Your task to perform on an android device: Show the shopping cart on costco. Add bose soundlink to the cart on costco Image 0: 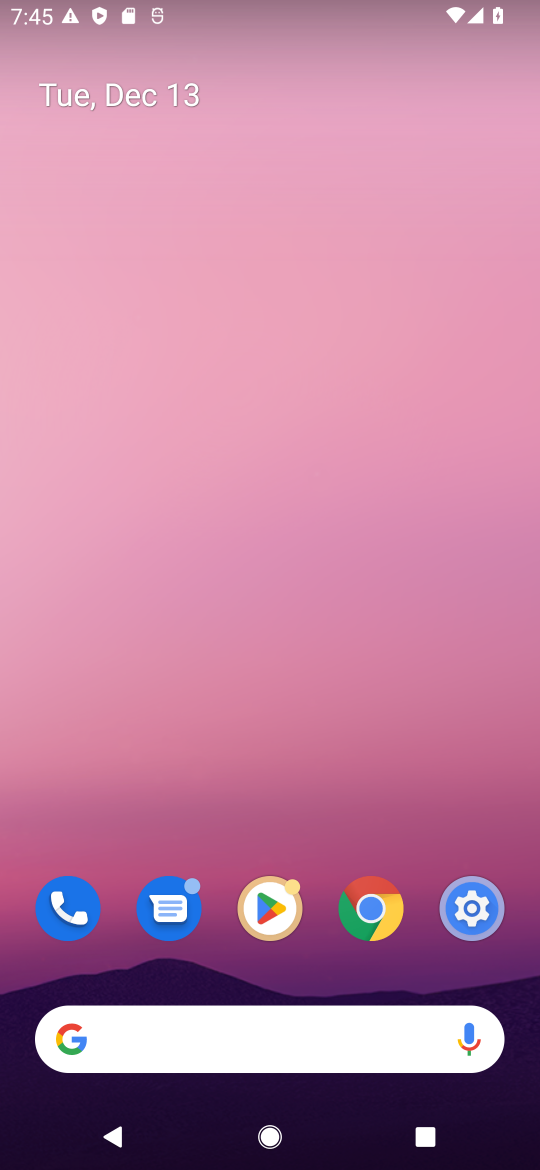
Step 0: press home button
Your task to perform on an android device: Show the shopping cart on costco. Add bose soundlink to the cart on costco Image 1: 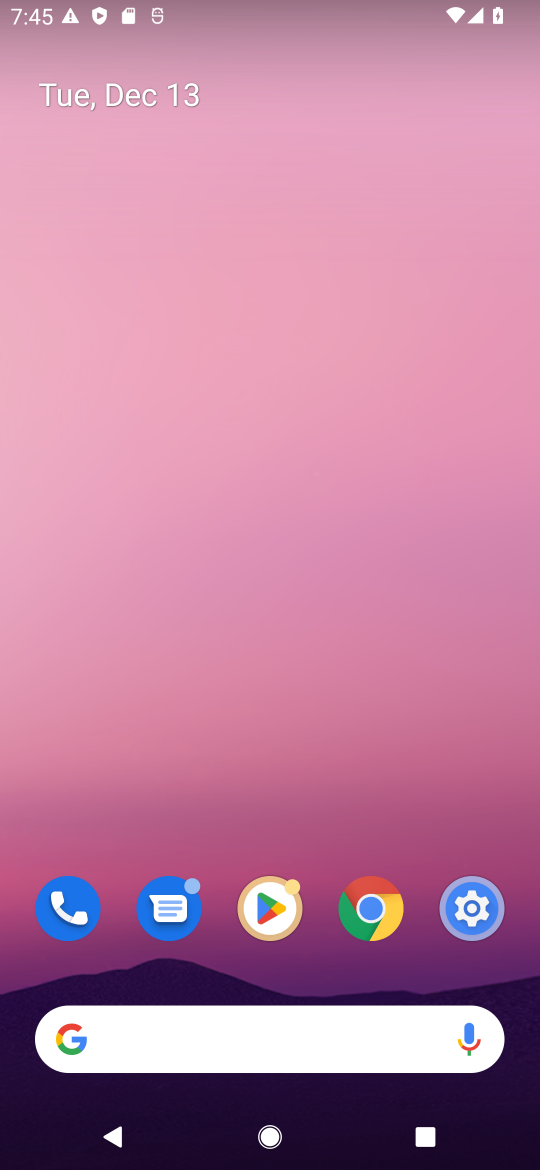
Step 1: click (108, 1032)
Your task to perform on an android device: Show the shopping cart on costco. Add bose soundlink to the cart on costco Image 2: 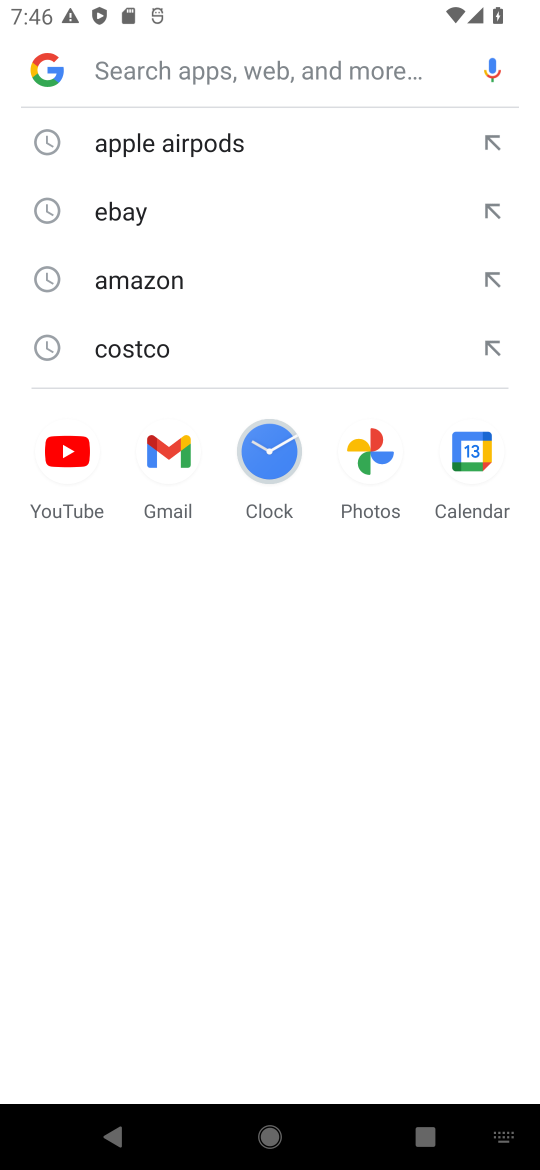
Step 2: type "costco"
Your task to perform on an android device: Show the shopping cart on costco. Add bose soundlink to the cart on costco Image 3: 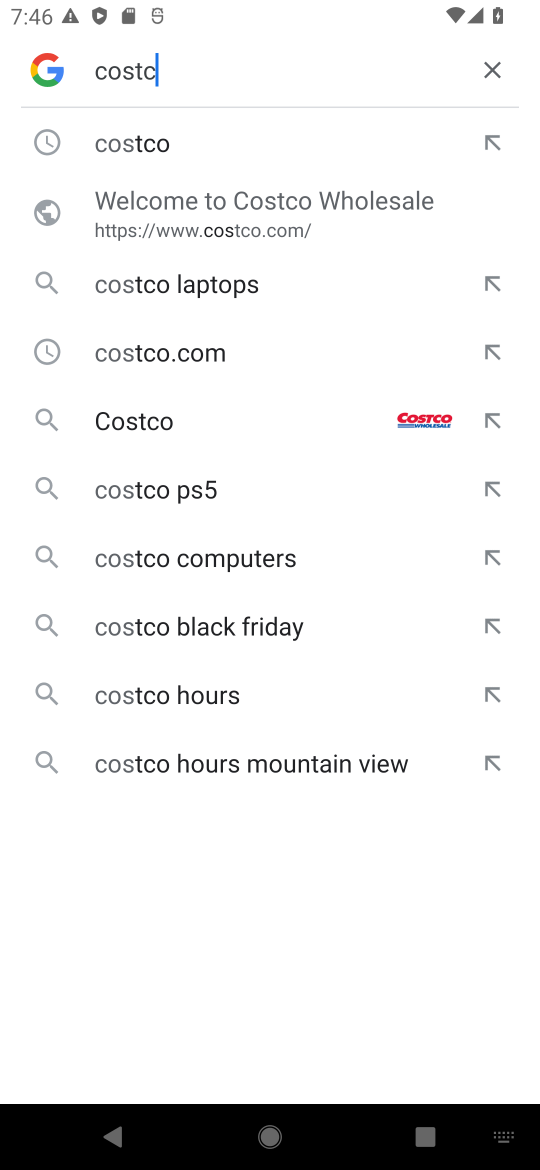
Step 3: press enter
Your task to perform on an android device: Show the shopping cart on costco. Add bose soundlink to the cart on costco Image 4: 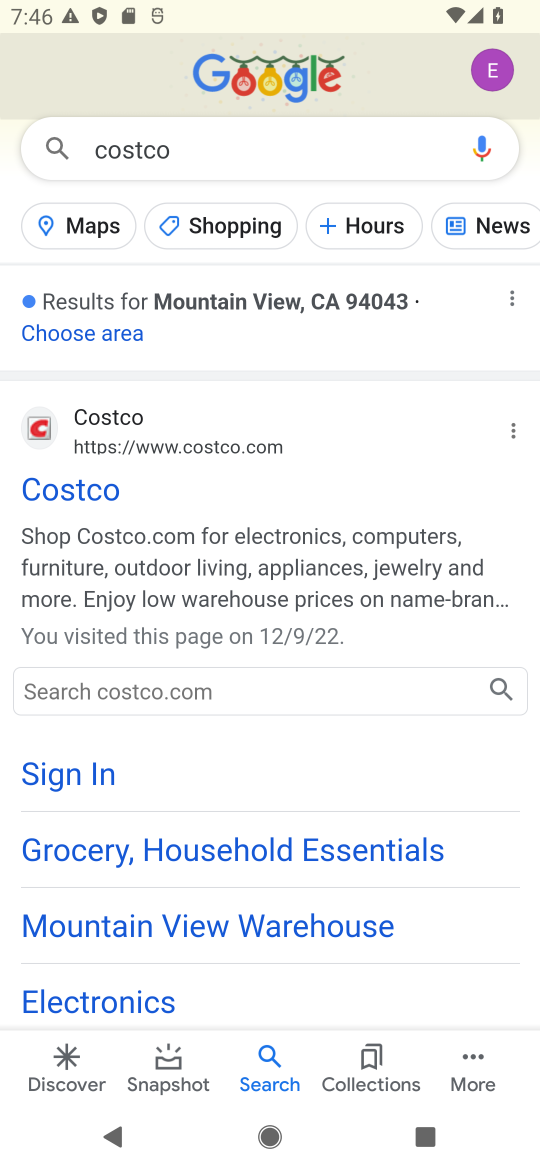
Step 4: click (81, 485)
Your task to perform on an android device: Show the shopping cart on costco. Add bose soundlink to the cart on costco Image 5: 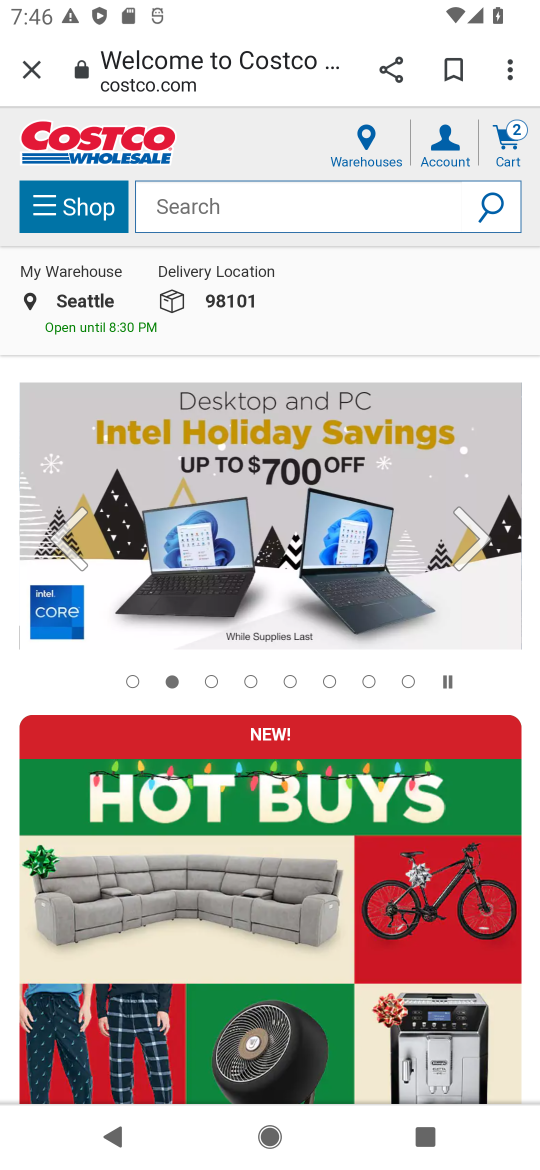
Step 5: click (509, 136)
Your task to perform on an android device: Show the shopping cart on costco. Add bose soundlink to the cart on costco Image 6: 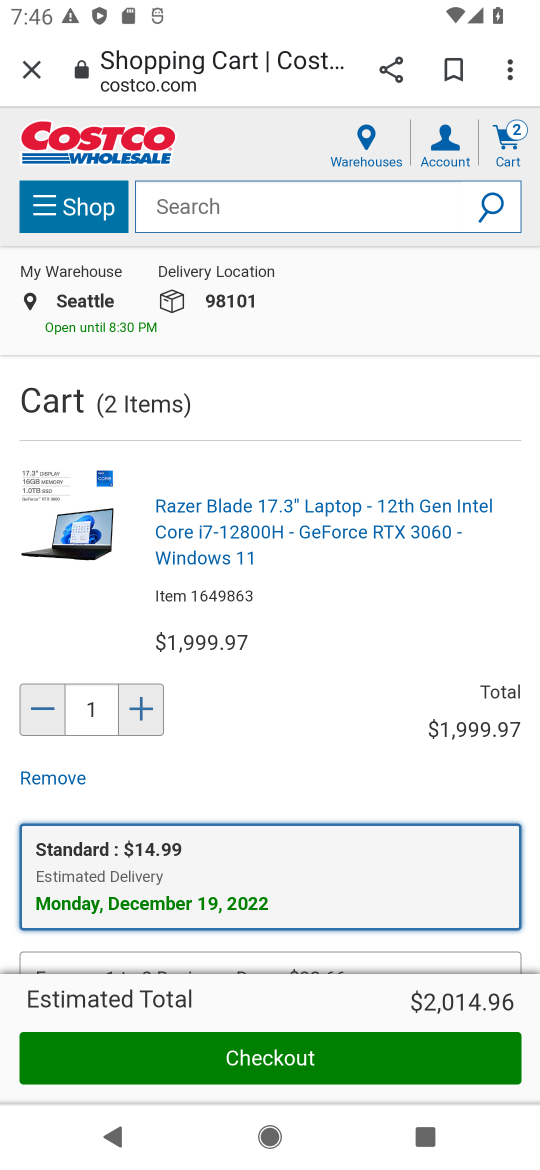
Step 6: click (193, 211)
Your task to perform on an android device: Show the shopping cart on costco. Add bose soundlink to the cart on costco Image 7: 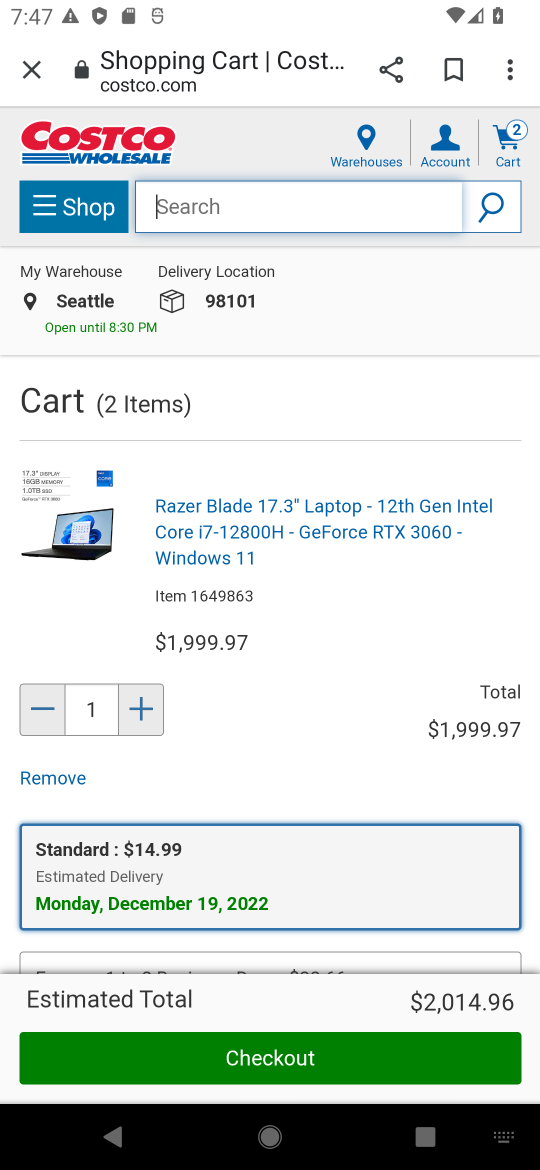
Step 7: type "bose soundlink"
Your task to perform on an android device: Show the shopping cart on costco. Add bose soundlink to the cart on costco Image 8: 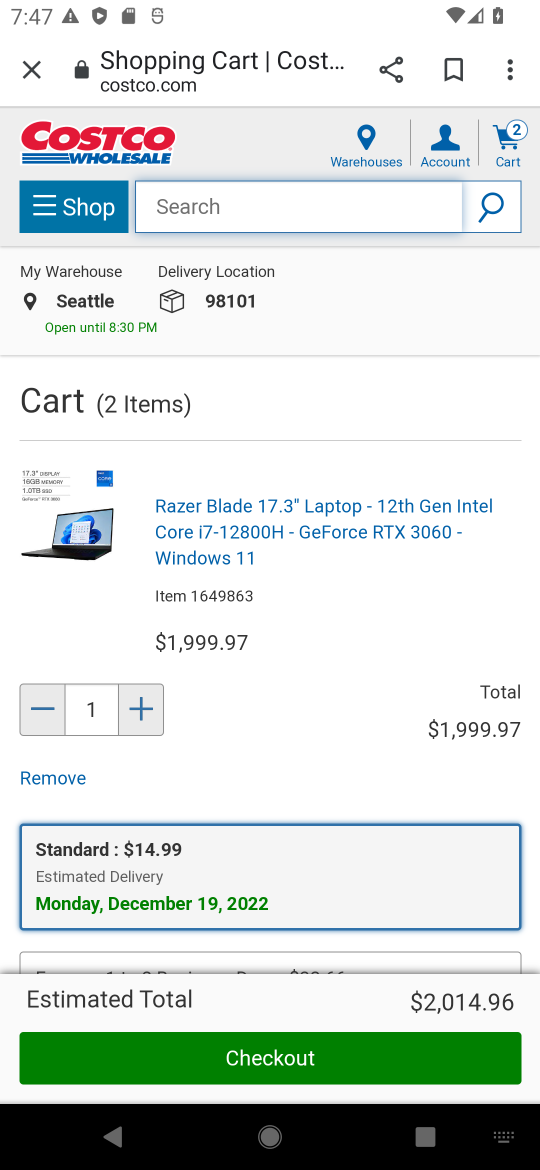
Step 8: press enter
Your task to perform on an android device: Show the shopping cart on costco. Add bose soundlink to the cart on costco Image 9: 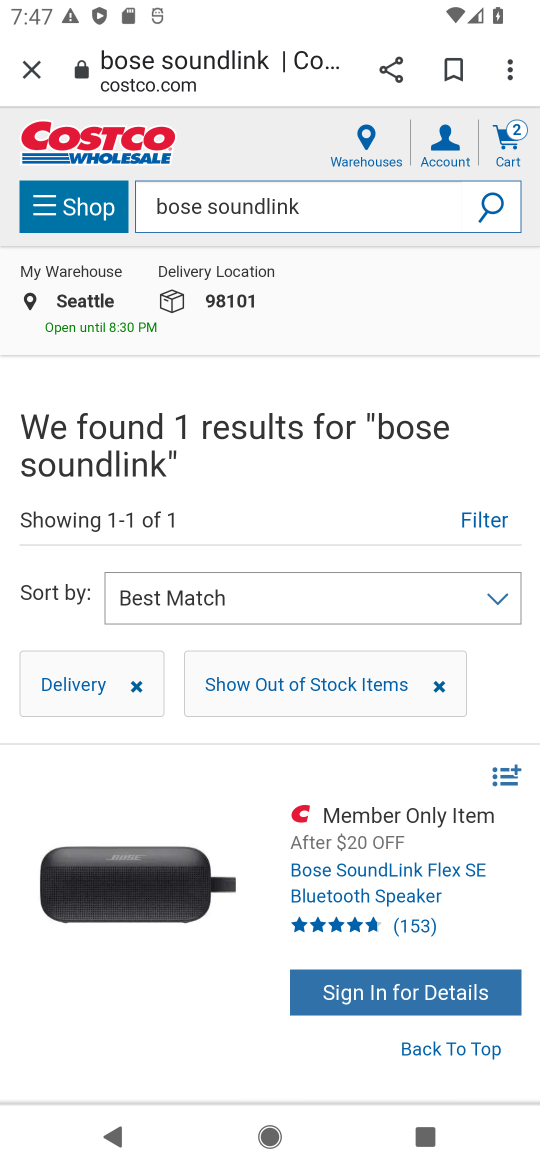
Step 9: drag from (246, 909) to (302, 584)
Your task to perform on an android device: Show the shopping cart on costco. Add bose soundlink to the cart on costco Image 10: 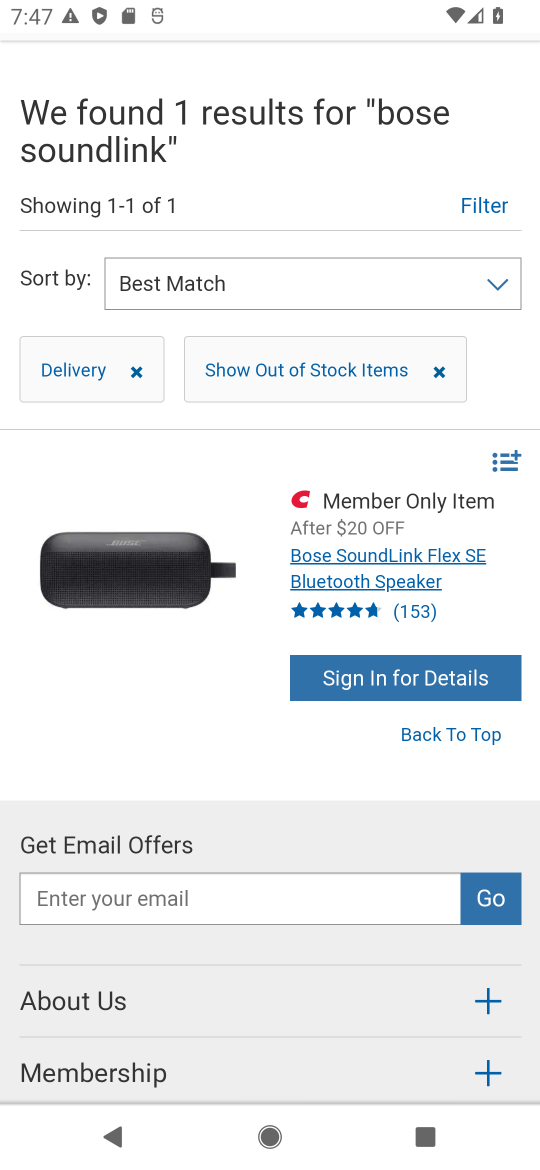
Step 10: click (337, 532)
Your task to perform on an android device: Show the shopping cart on costco. Add bose soundlink to the cart on costco Image 11: 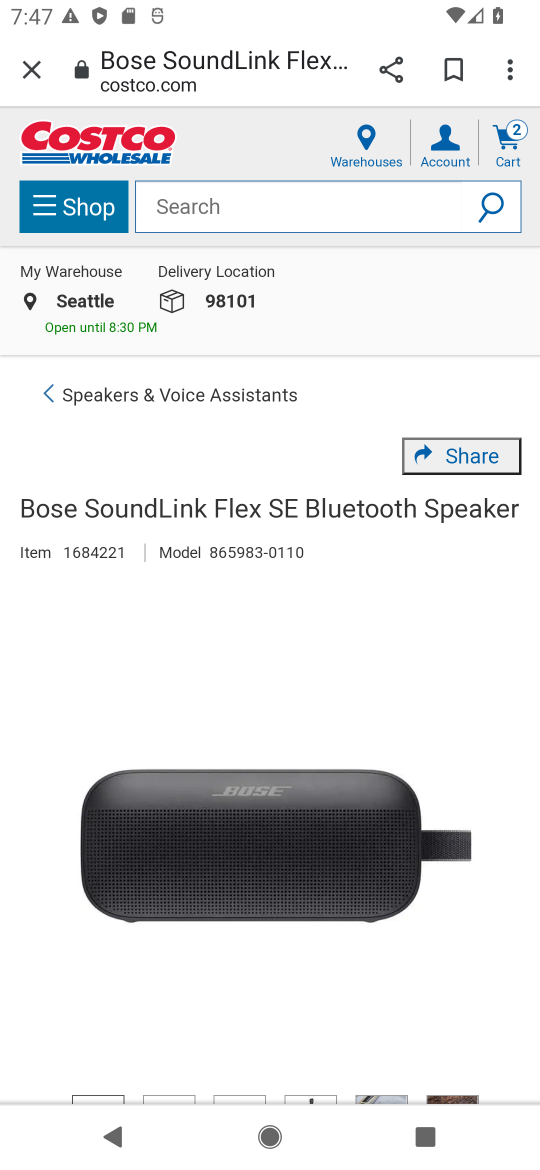
Step 11: drag from (277, 923) to (254, 392)
Your task to perform on an android device: Show the shopping cart on costco. Add bose soundlink to the cart on costco Image 12: 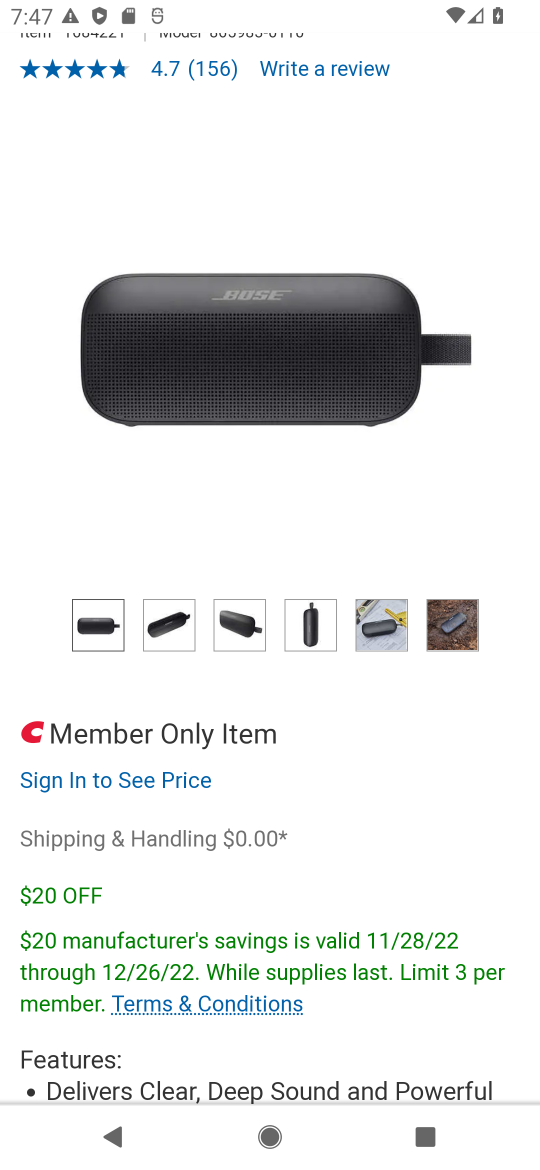
Step 12: drag from (247, 912) to (256, 372)
Your task to perform on an android device: Show the shopping cart on costco. Add bose soundlink to the cart on costco Image 13: 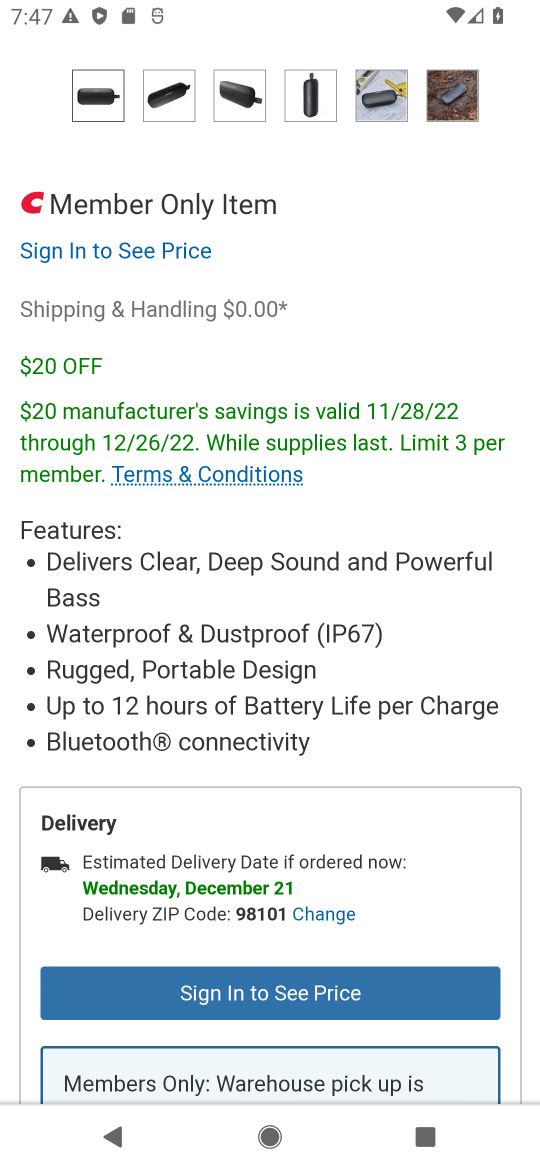
Step 13: drag from (253, 921) to (296, 396)
Your task to perform on an android device: Show the shopping cart on costco. Add bose soundlink to the cart on costco Image 14: 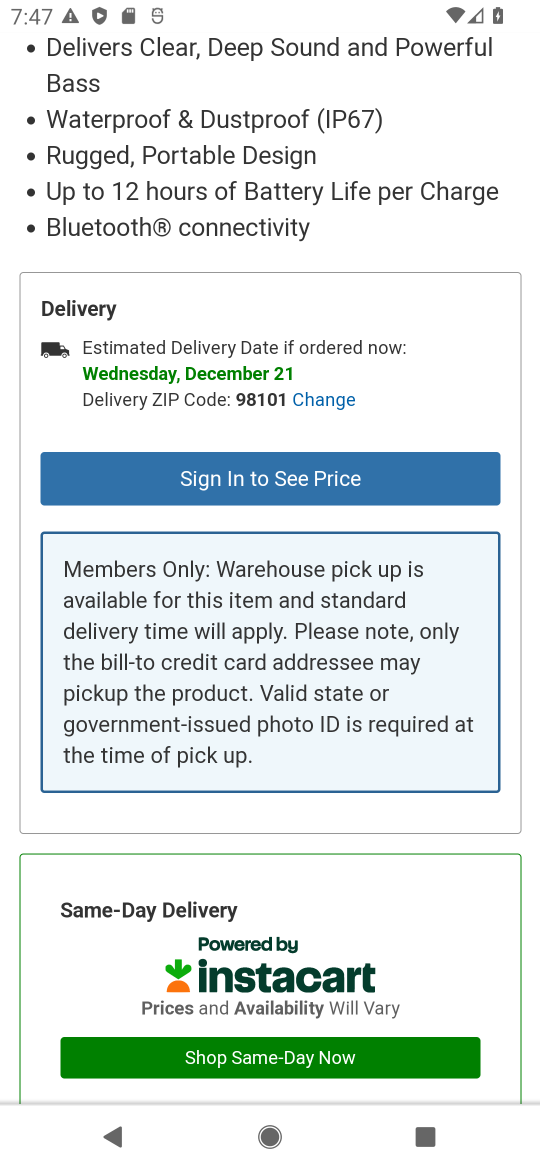
Step 14: drag from (300, 936) to (348, 358)
Your task to perform on an android device: Show the shopping cart on costco. Add bose soundlink to the cart on costco Image 15: 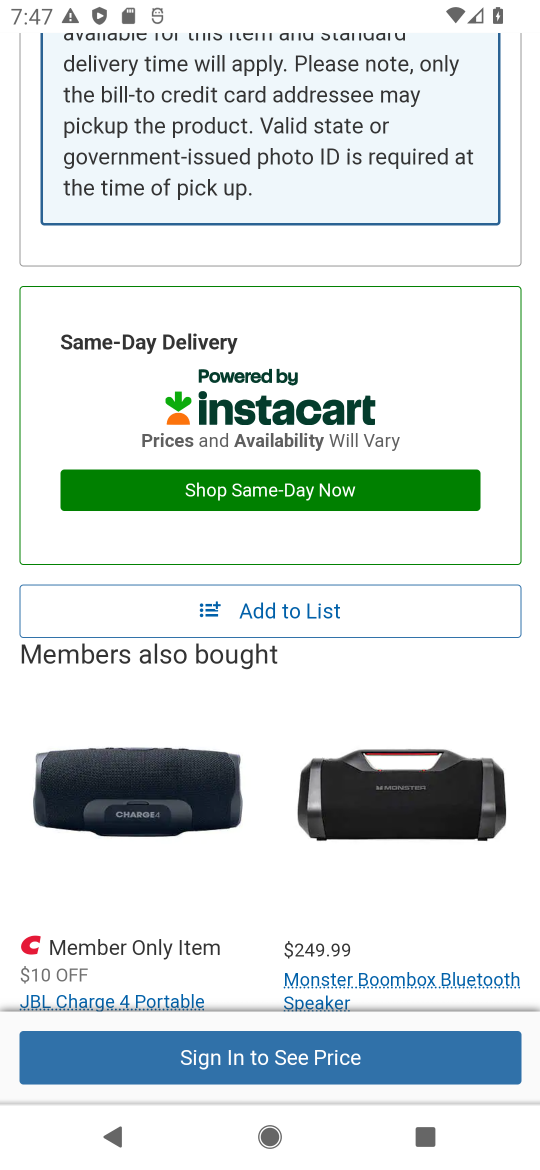
Step 15: click (268, 615)
Your task to perform on an android device: Show the shopping cart on costco. Add bose soundlink to the cart on costco Image 16: 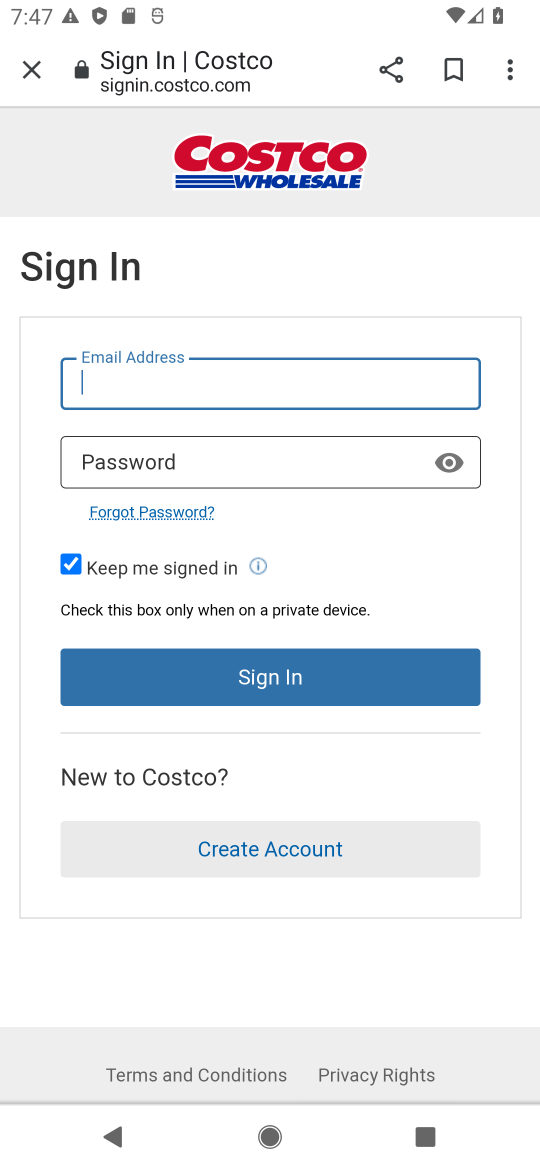
Step 16: task complete